Your task to perform on an android device: set an alarm Image 0: 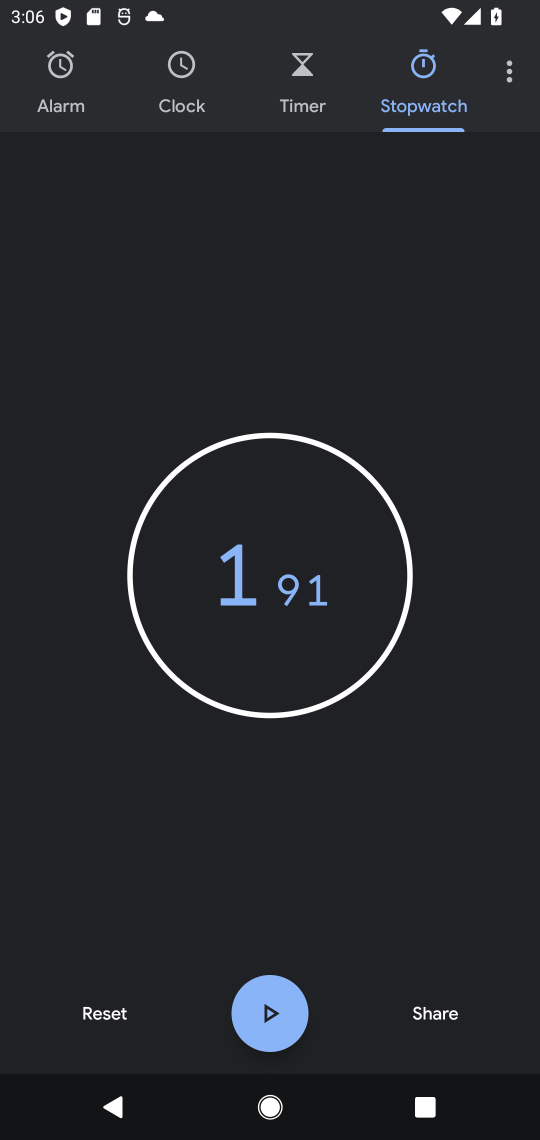
Step 0: click (72, 105)
Your task to perform on an android device: set an alarm Image 1: 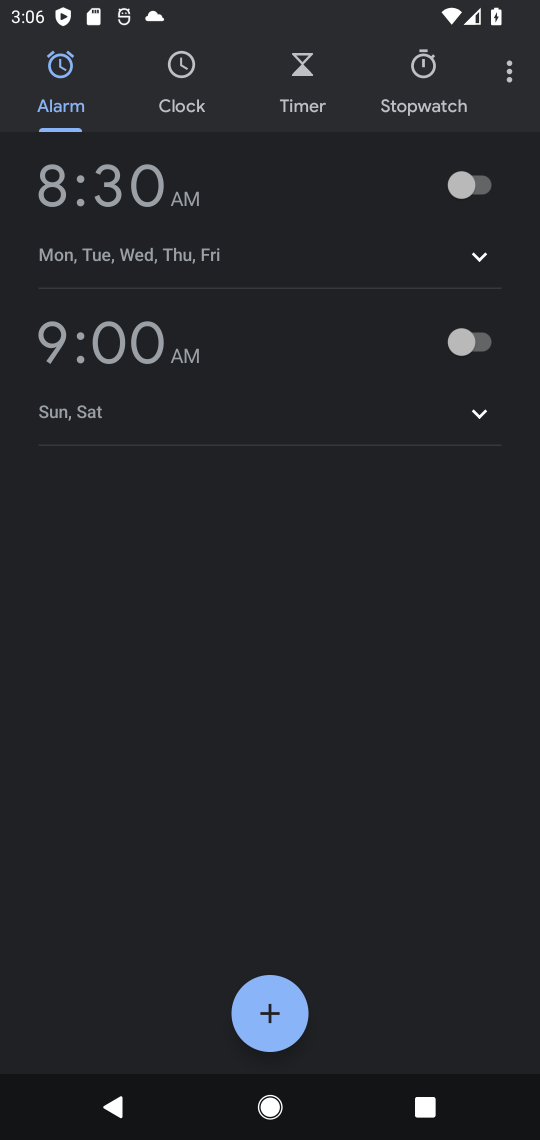
Step 1: click (490, 177)
Your task to perform on an android device: set an alarm Image 2: 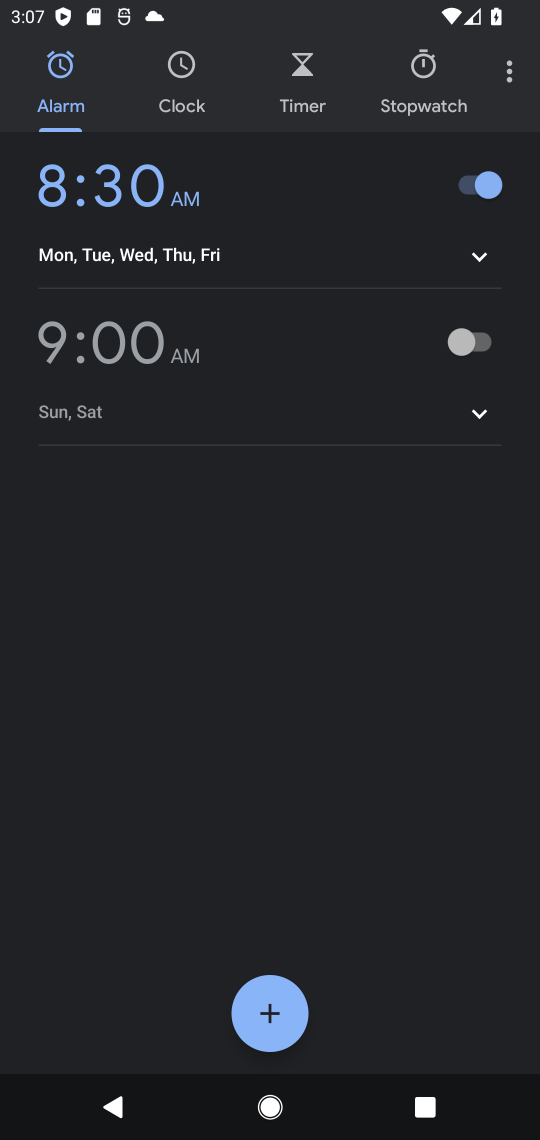
Step 2: task complete